Your task to perform on an android device: open chrome and create a bookmark for the current page Image 0: 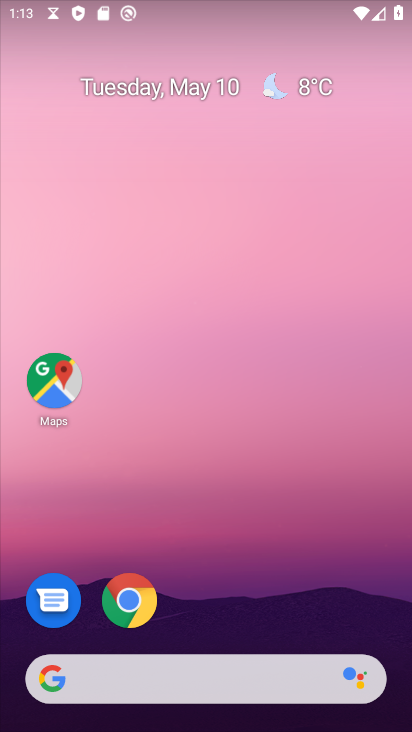
Step 0: click (126, 593)
Your task to perform on an android device: open chrome and create a bookmark for the current page Image 1: 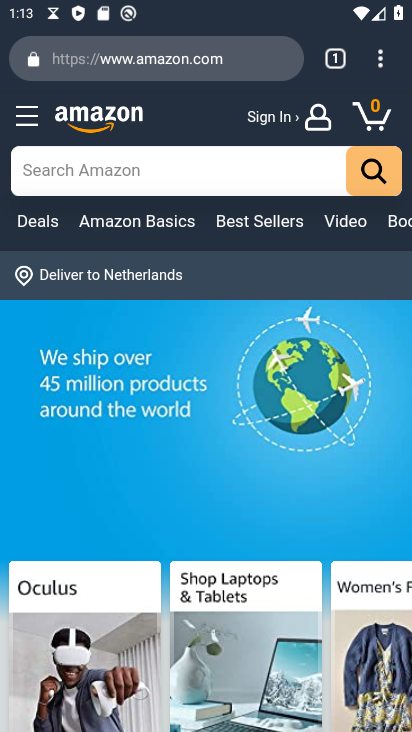
Step 1: press home button
Your task to perform on an android device: open chrome and create a bookmark for the current page Image 2: 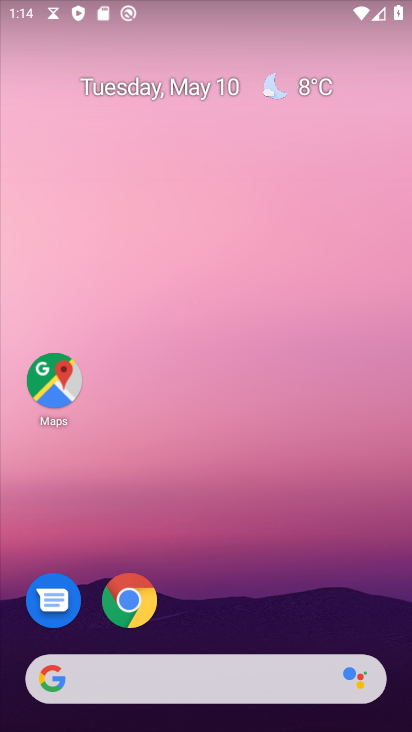
Step 2: drag from (218, 636) to (215, 53)
Your task to perform on an android device: open chrome and create a bookmark for the current page Image 3: 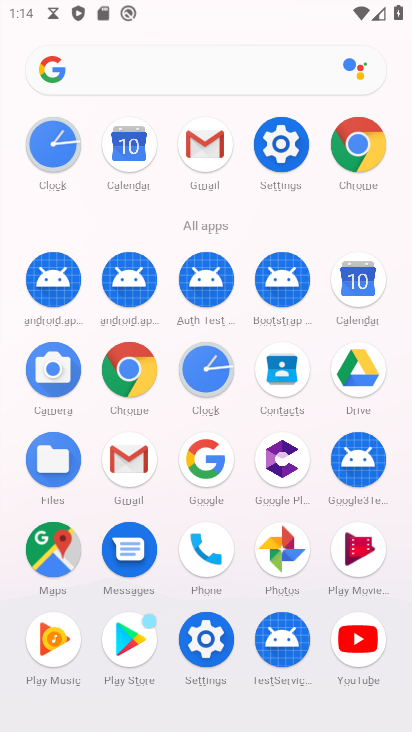
Step 3: click (358, 143)
Your task to perform on an android device: open chrome and create a bookmark for the current page Image 4: 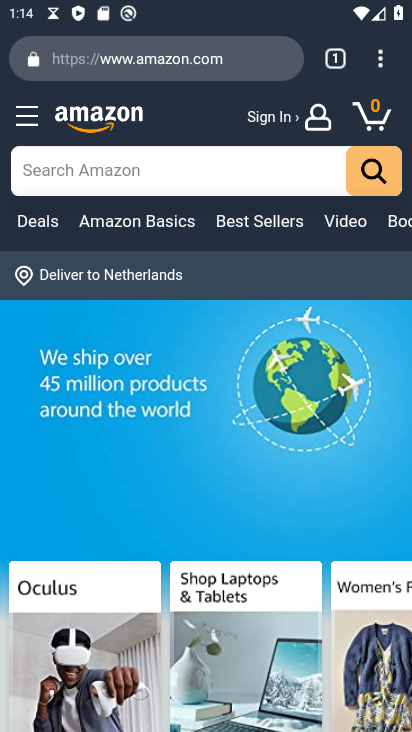
Step 4: click (377, 62)
Your task to perform on an android device: open chrome and create a bookmark for the current page Image 5: 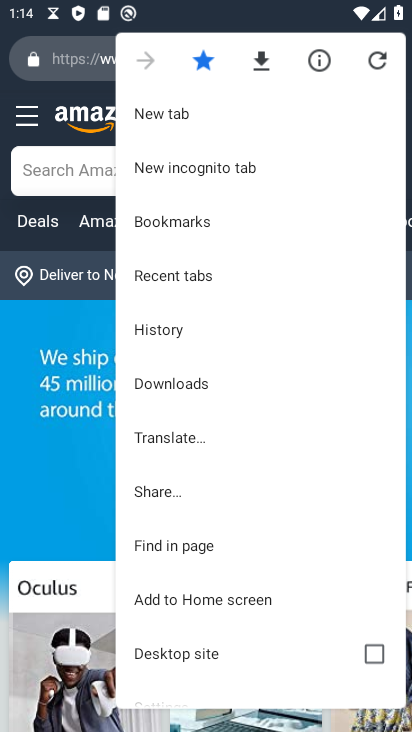
Step 5: click (212, 218)
Your task to perform on an android device: open chrome and create a bookmark for the current page Image 6: 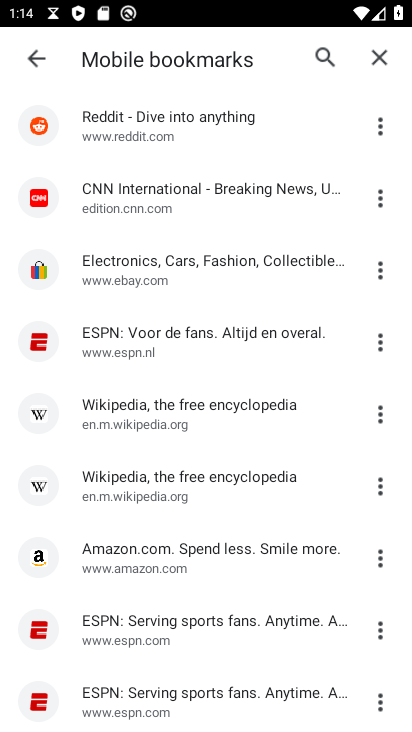
Step 6: click (378, 59)
Your task to perform on an android device: open chrome and create a bookmark for the current page Image 7: 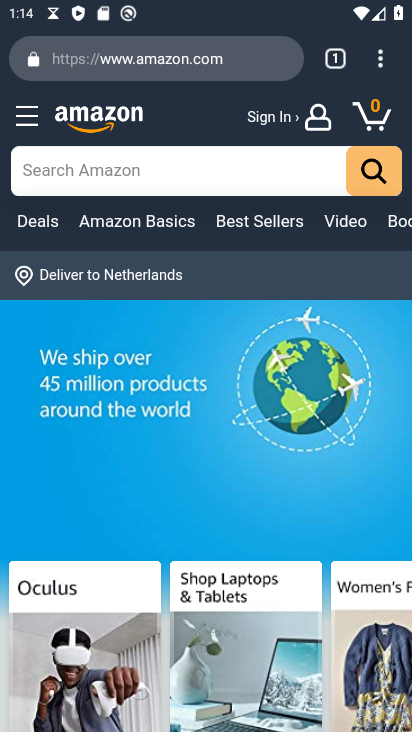
Step 7: click (335, 55)
Your task to perform on an android device: open chrome and create a bookmark for the current page Image 8: 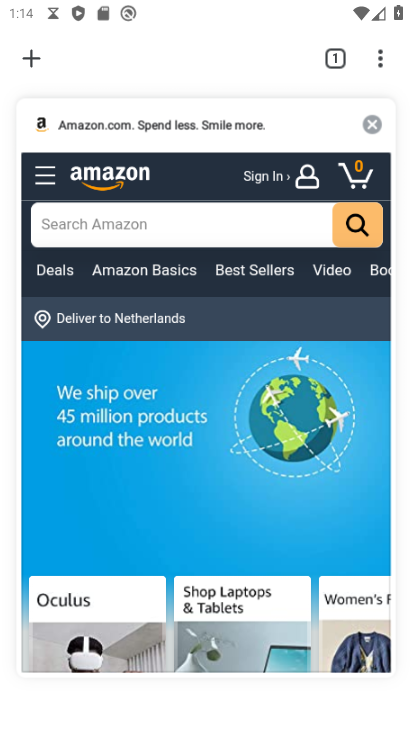
Step 8: click (30, 52)
Your task to perform on an android device: open chrome and create a bookmark for the current page Image 9: 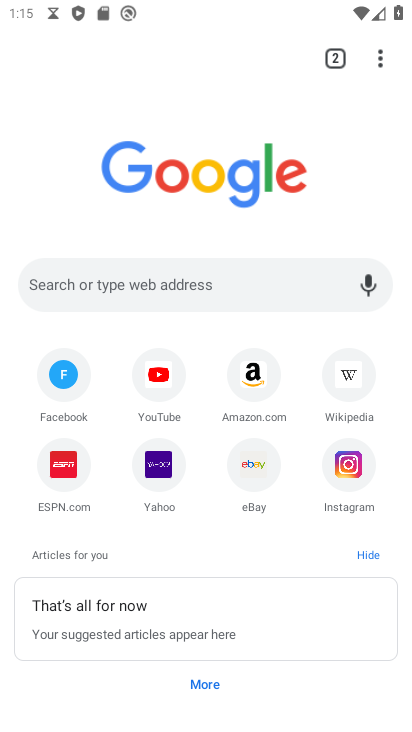
Step 9: click (118, 281)
Your task to perform on an android device: open chrome and create a bookmark for the current page Image 10: 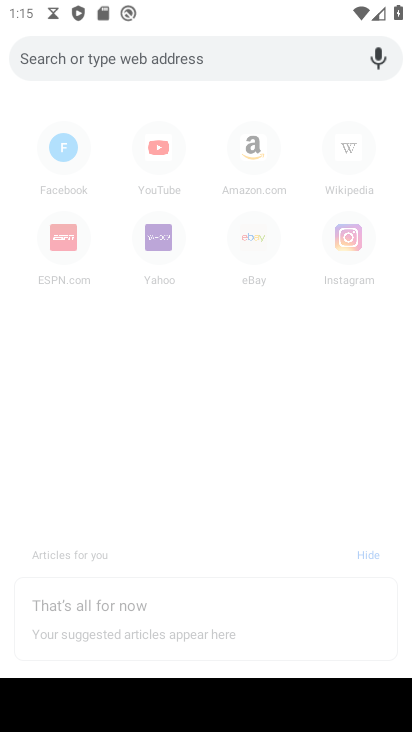
Step 10: type "pressure"
Your task to perform on an android device: open chrome and create a bookmark for the current page Image 11: 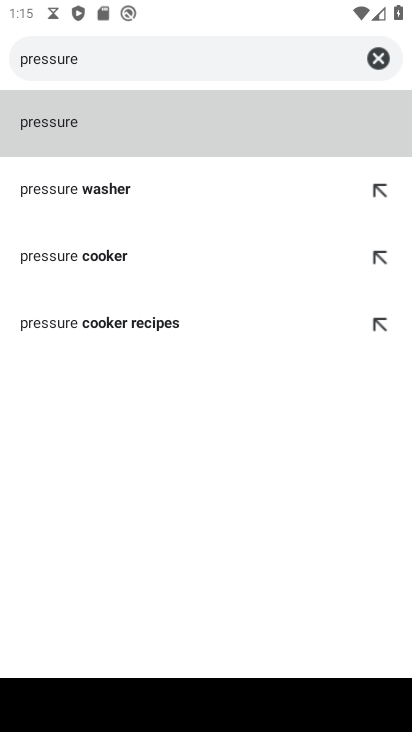
Step 11: click (116, 115)
Your task to perform on an android device: open chrome and create a bookmark for the current page Image 12: 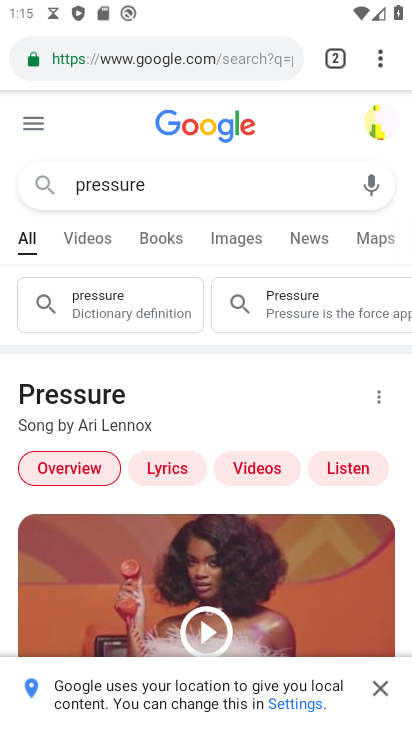
Step 12: click (373, 56)
Your task to perform on an android device: open chrome and create a bookmark for the current page Image 13: 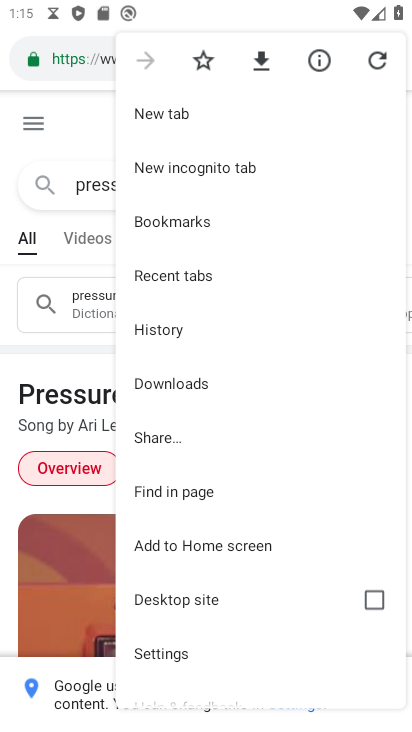
Step 13: click (202, 62)
Your task to perform on an android device: open chrome and create a bookmark for the current page Image 14: 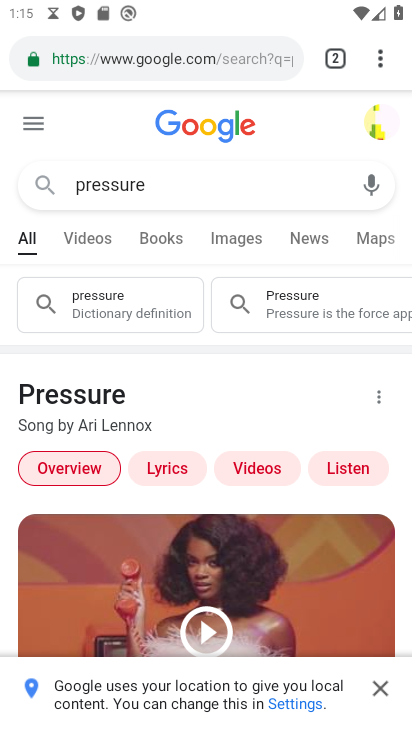
Step 14: task complete